Your task to perform on an android device: Search for "asus rog" on costco.com, select the first entry, add it to the cart, then select checkout. Image 0: 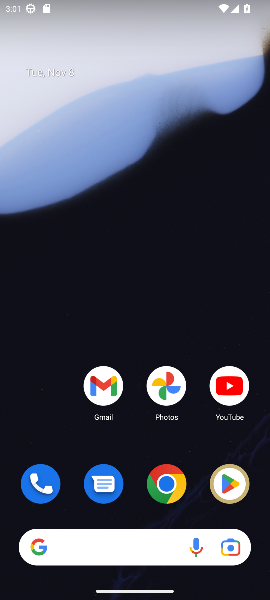
Step 0: click (158, 487)
Your task to perform on an android device: Search for "asus rog" on costco.com, select the first entry, add it to the cart, then select checkout. Image 1: 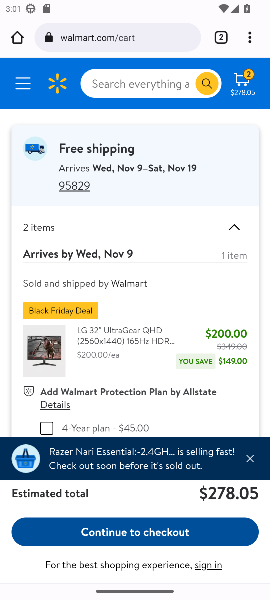
Step 1: click (127, 44)
Your task to perform on an android device: Search for "asus rog" on costco.com, select the first entry, add it to the cart, then select checkout. Image 2: 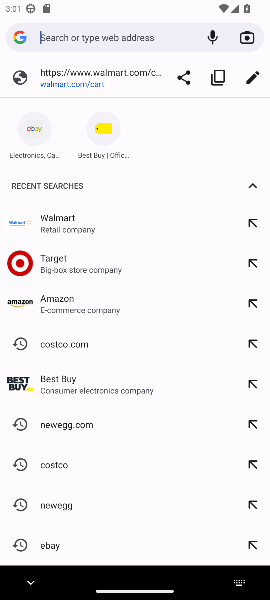
Step 2: click (48, 468)
Your task to perform on an android device: Search for "asus rog" on costco.com, select the first entry, add it to the cart, then select checkout. Image 3: 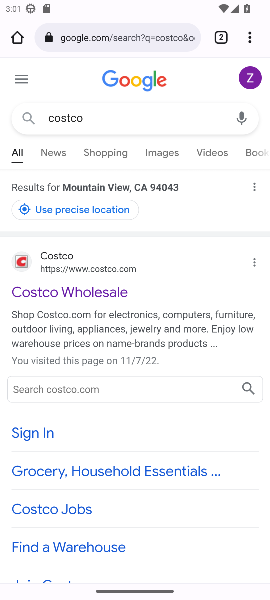
Step 3: click (47, 288)
Your task to perform on an android device: Search for "asus rog" on costco.com, select the first entry, add it to the cart, then select checkout. Image 4: 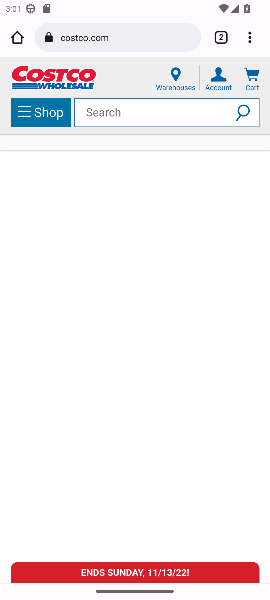
Step 4: click (114, 115)
Your task to perform on an android device: Search for "asus rog" on costco.com, select the first entry, add it to the cart, then select checkout. Image 5: 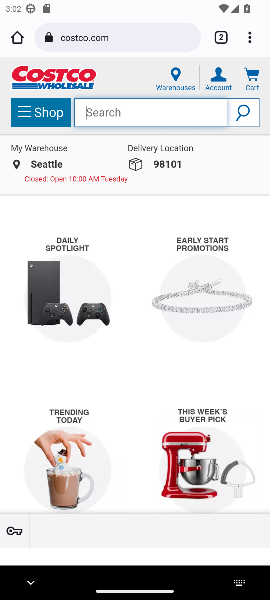
Step 5: type "asus rog"
Your task to perform on an android device: Search for "asus rog" on costco.com, select the first entry, add it to the cart, then select checkout. Image 6: 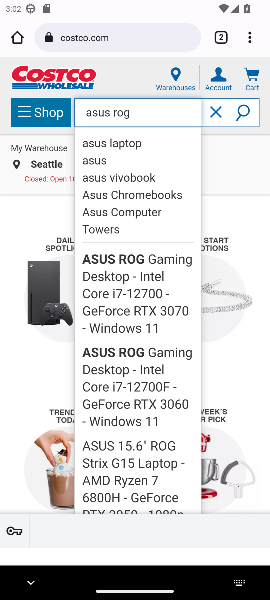
Step 6: click (241, 110)
Your task to perform on an android device: Search for "asus rog" on costco.com, select the first entry, add it to the cart, then select checkout. Image 7: 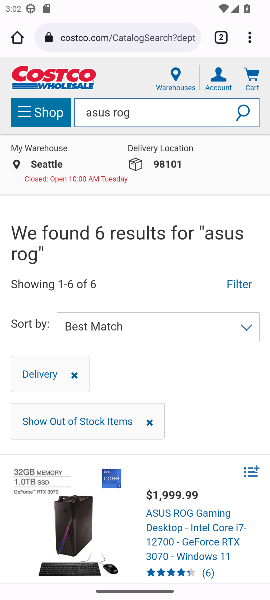
Step 7: drag from (181, 443) to (169, 254)
Your task to perform on an android device: Search for "asus rog" on costco.com, select the first entry, add it to the cart, then select checkout. Image 8: 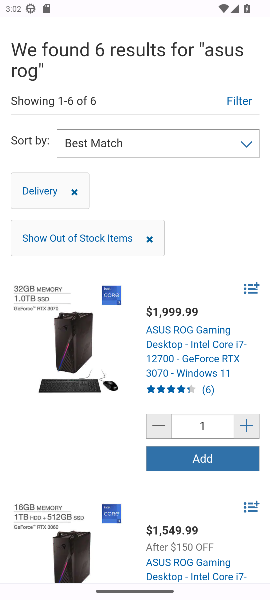
Step 8: click (192, 466)
Your task to perform on an android device: Search for "asus rog" on costco.com, select the first entry, add it to the cart, then select checkout. Image 9: 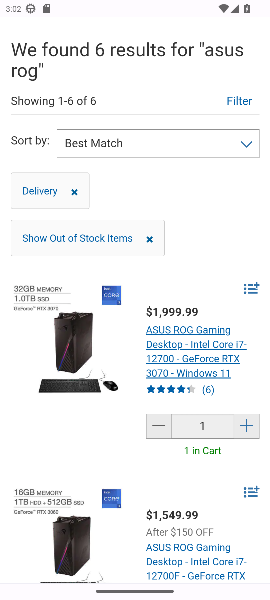
Step 9: drag from (187, 76) to (168, 316)
Your task to perform on an android device: Search for "asus rog" on costco.com, select the first entry, add it to the cart, then select checkout. Image 10: 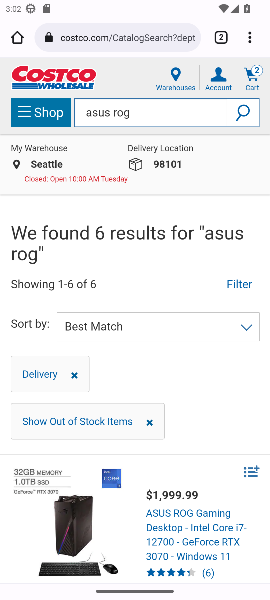
Step 10: drag from (186, 161) to (187, 322)
Your task to perform on an android device: Search for "asus rog" on costco.com, select the first entry, add it to the cart, then select checkout. Image 11: 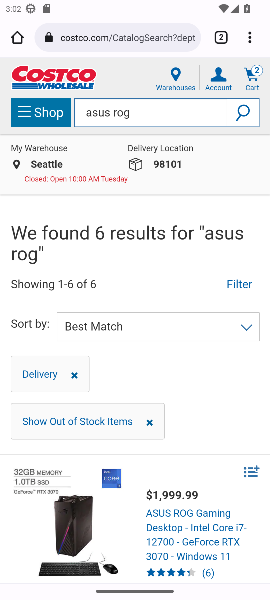
Step 11: click (251, 71)
Your task to perform on an android device: Search for "asus rog" on costco.com, select the first entry, add it to the cart, then select checkout. Image 12: 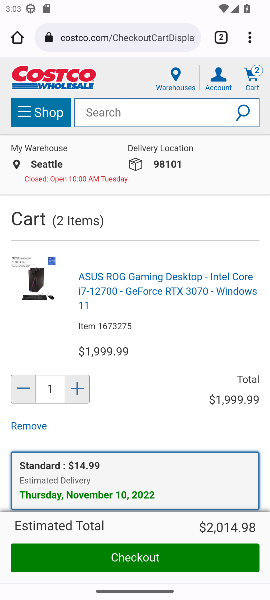
Step 12: click (66, 550)
Your task to perform on an android device: Search for "asus rog" on costco.com, select the first entry, add it to the cart, then select checkout. Image 13: 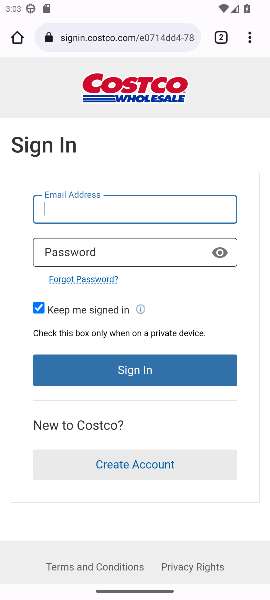
Step 13: task complete